Your task to perform on an android device: open app "Speedtest by Ookla" (install if not already installed) Image 0: 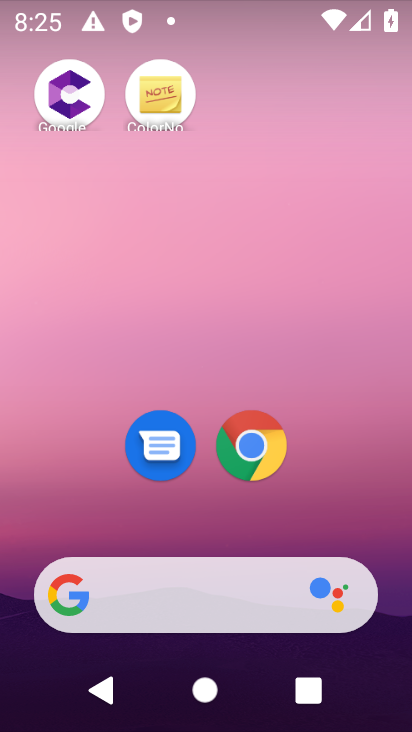
Step 0: drag from (214, 577) to (239, 54)
Your task to perform on an android device: open app "Speedtest by Ookla" (install if not already installed) Image 1: 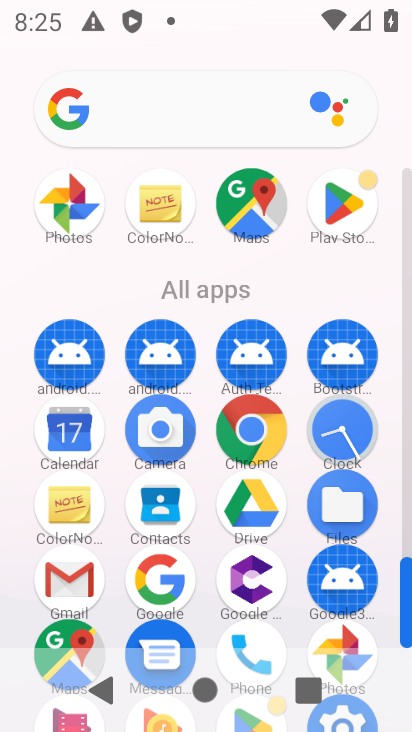
Step 1: click (347, 207)
Your task to perform on an android device: open app "Speedtest by Ookla" (install if not already installed) Image 2: 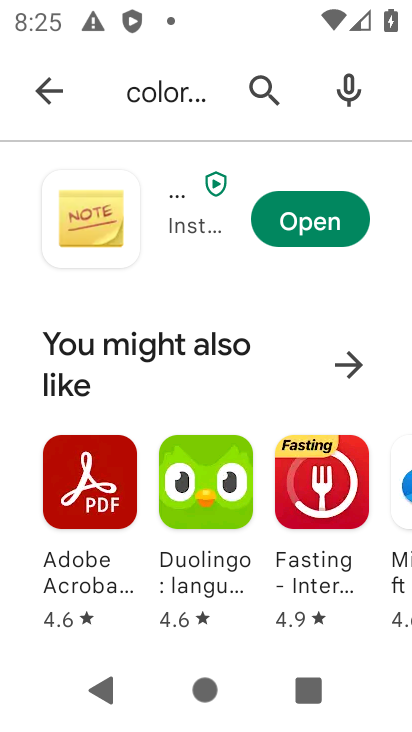
Step 2: press back button
Your task to perform on an android device: open app "Speedtest by Ookla" (install if not already installed) Image 3: 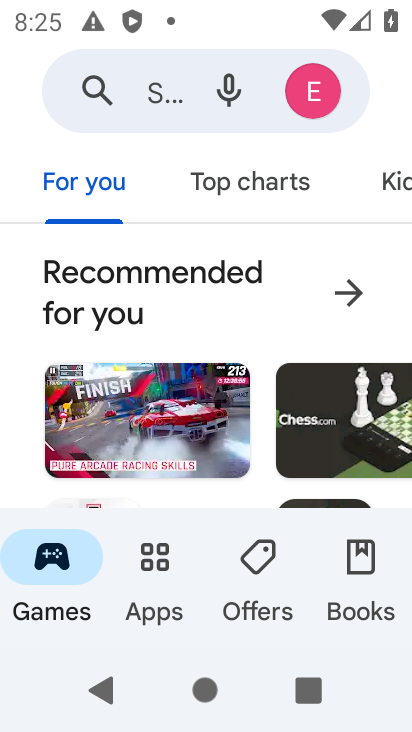
Step 3: click (172, 105)
Your task to perform on an android device: open app "Speedtest by Ookla" (install if not already installed) Image 4: 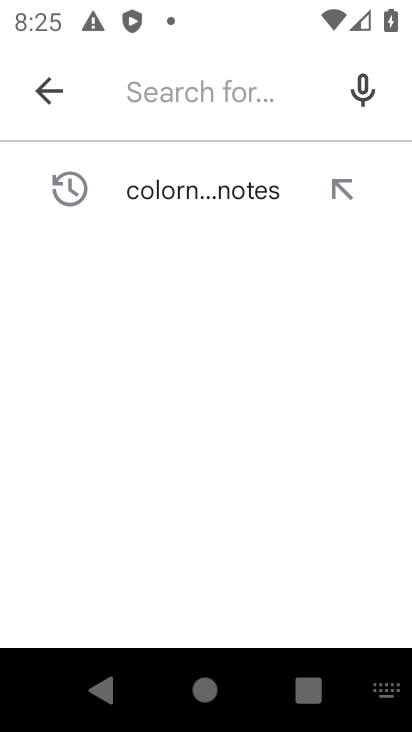
Step 4: type "Speedtest by Ookla"
Your task to perform on an android device: open app "Speedtest by Ookla" (install if not already installed) Image 5: 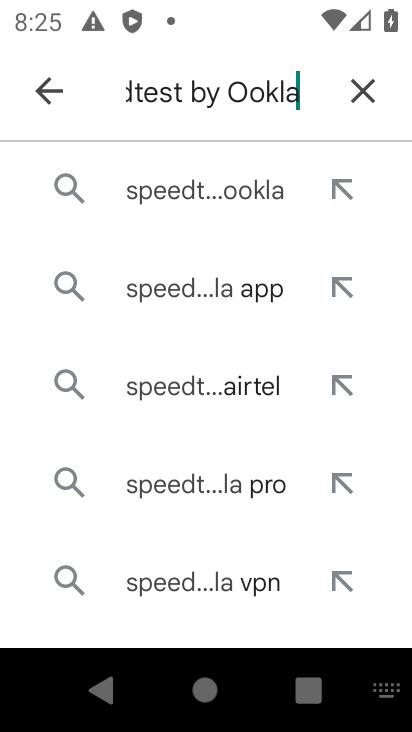
Step 5: click (186, 211)
Your task to perform on an android device: open app "Speedtest by Ookla" (install if not already installed) Image 6: 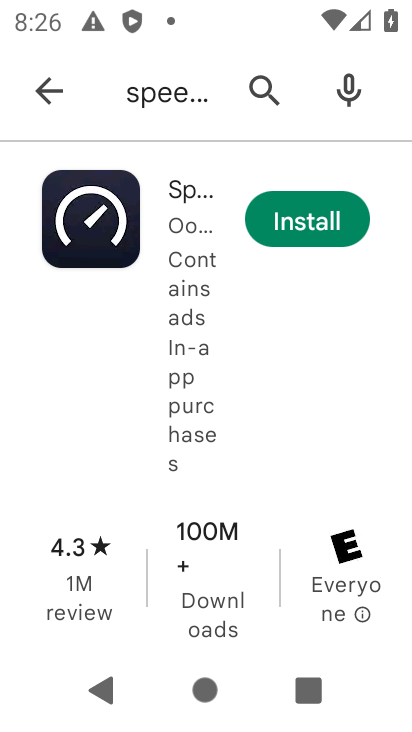
Step 6: click (310, 232)
Your task to perform on an android device: open app "Speedtest by Ookla" (install if not already installed) Image 7: 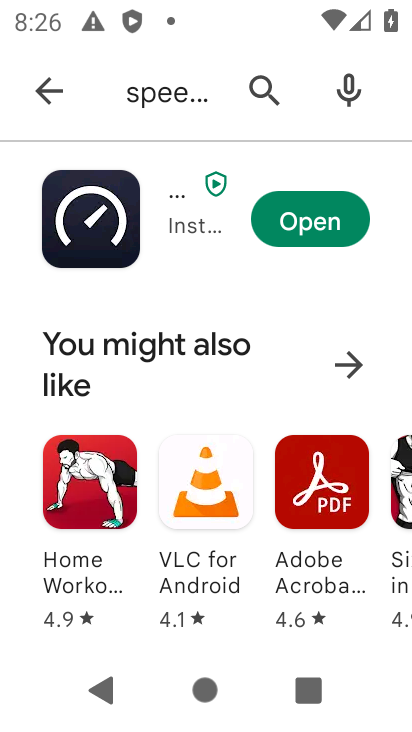
Step 7: click (331, 224)
Your task to perform on an android device: open app "Speedtest by Ookla" (install if not already installed) Image 8: 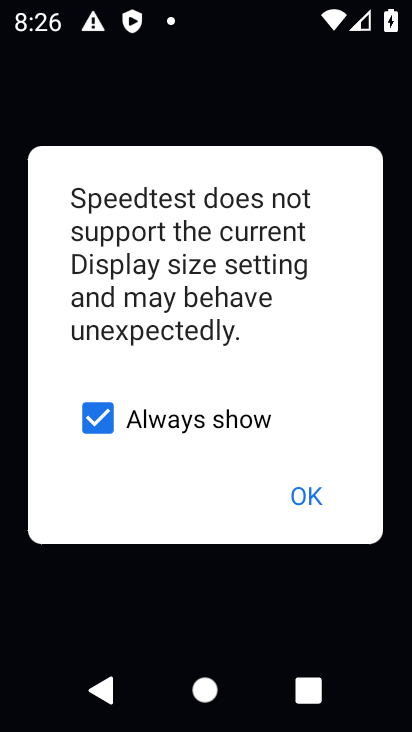
Step 8: click (304, 488)
Your task to perform on an android device: open app "Speedtest by Ookla" (install if not already installed) Image 9: 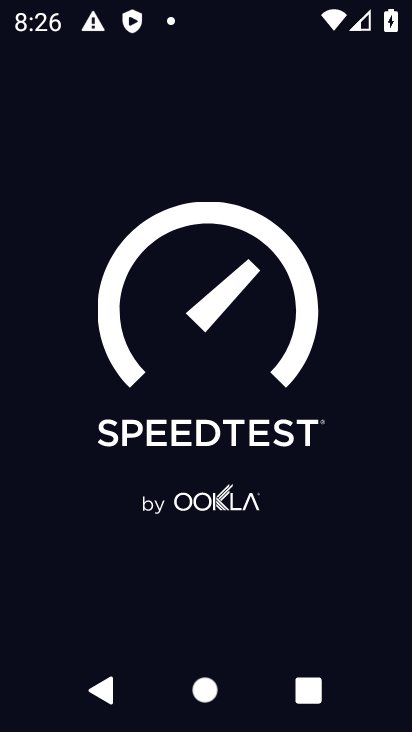
Step 9: click (313, 493)
Your task to perform on an android device: open app "Speedtest by Ookla" (install if not already installed) Image 10: 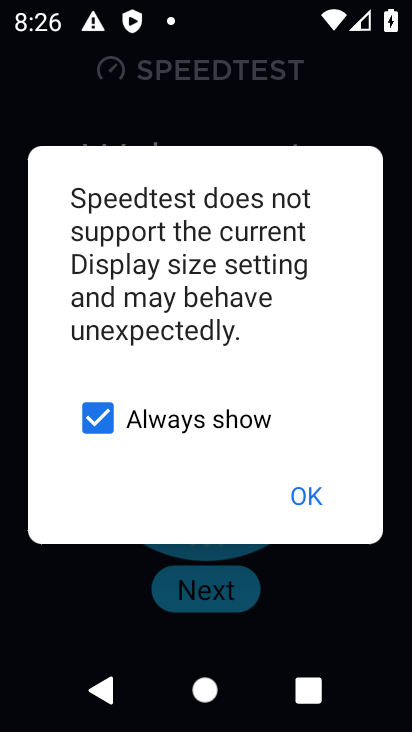
Step 10: task complete